Your task to perform on an android device: Go to Maps Image 0: 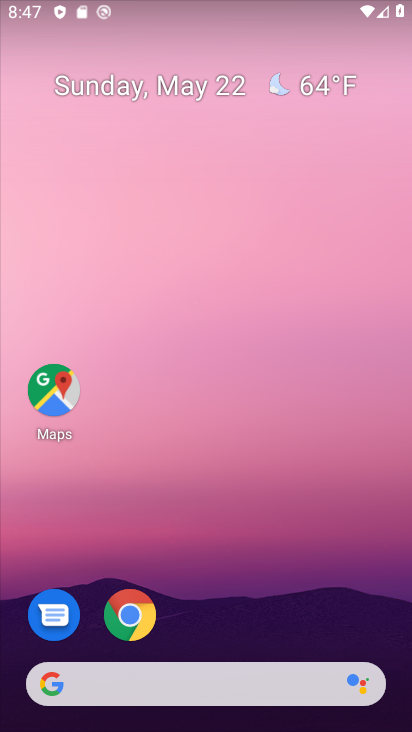
Step 0: click (42, 387)
Your task to perform on an android device: Go to Maps Image 1: 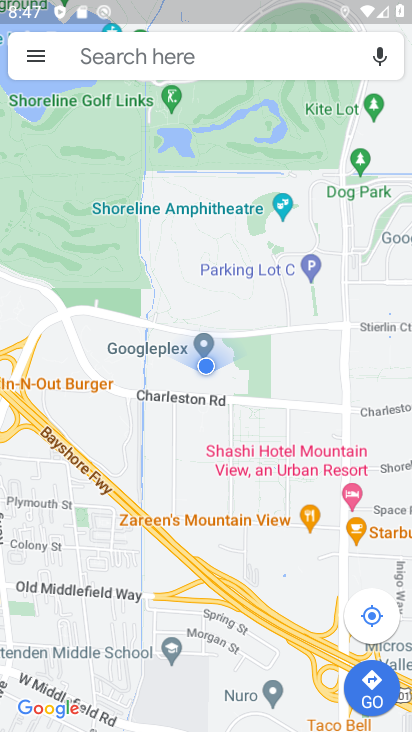
Step 1: task complete